Your task to perform on an android device: open app "PUBG MOBILE" (install if not already installed) Image 0: 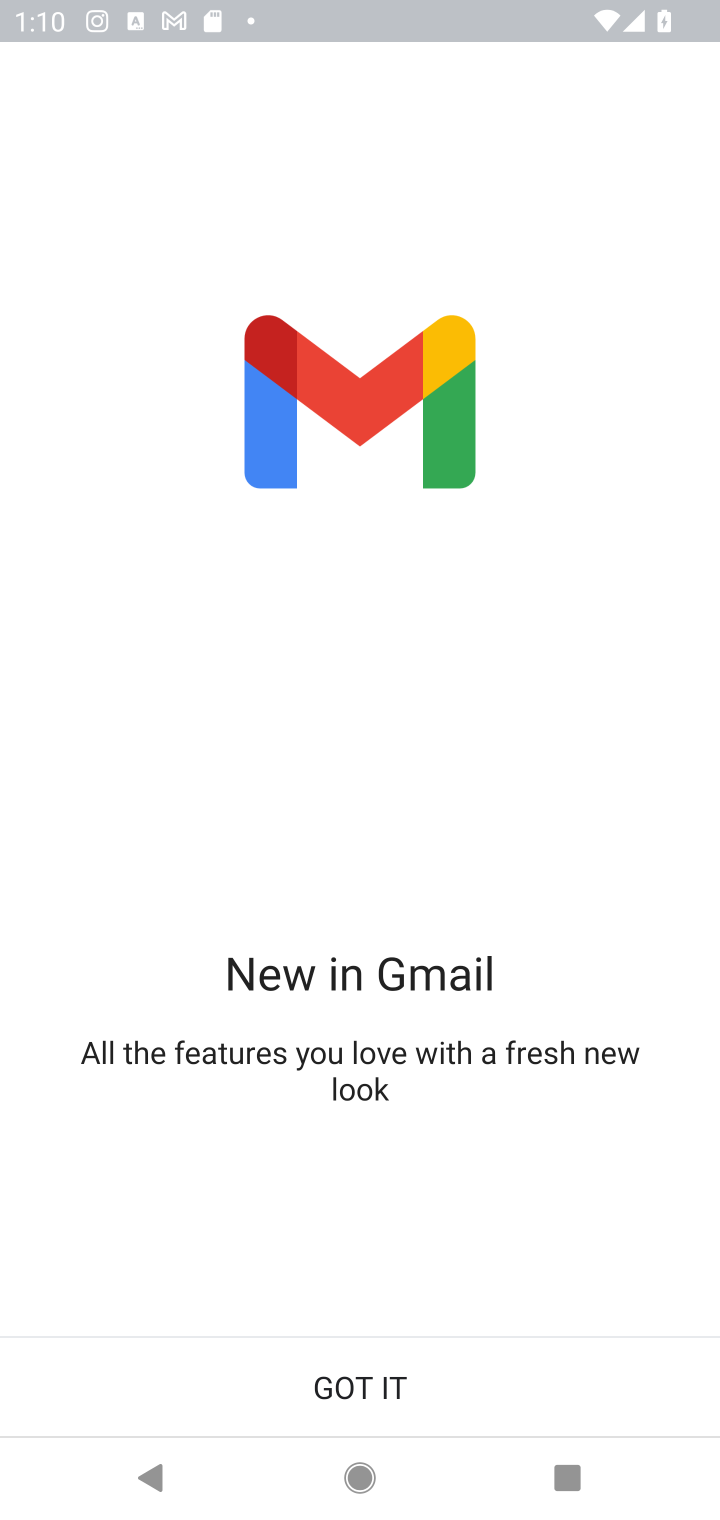
Step 0: press home button
Your task to perform on an android device: open app "PUBG MOBILE" (install if not already installed) Image 1: 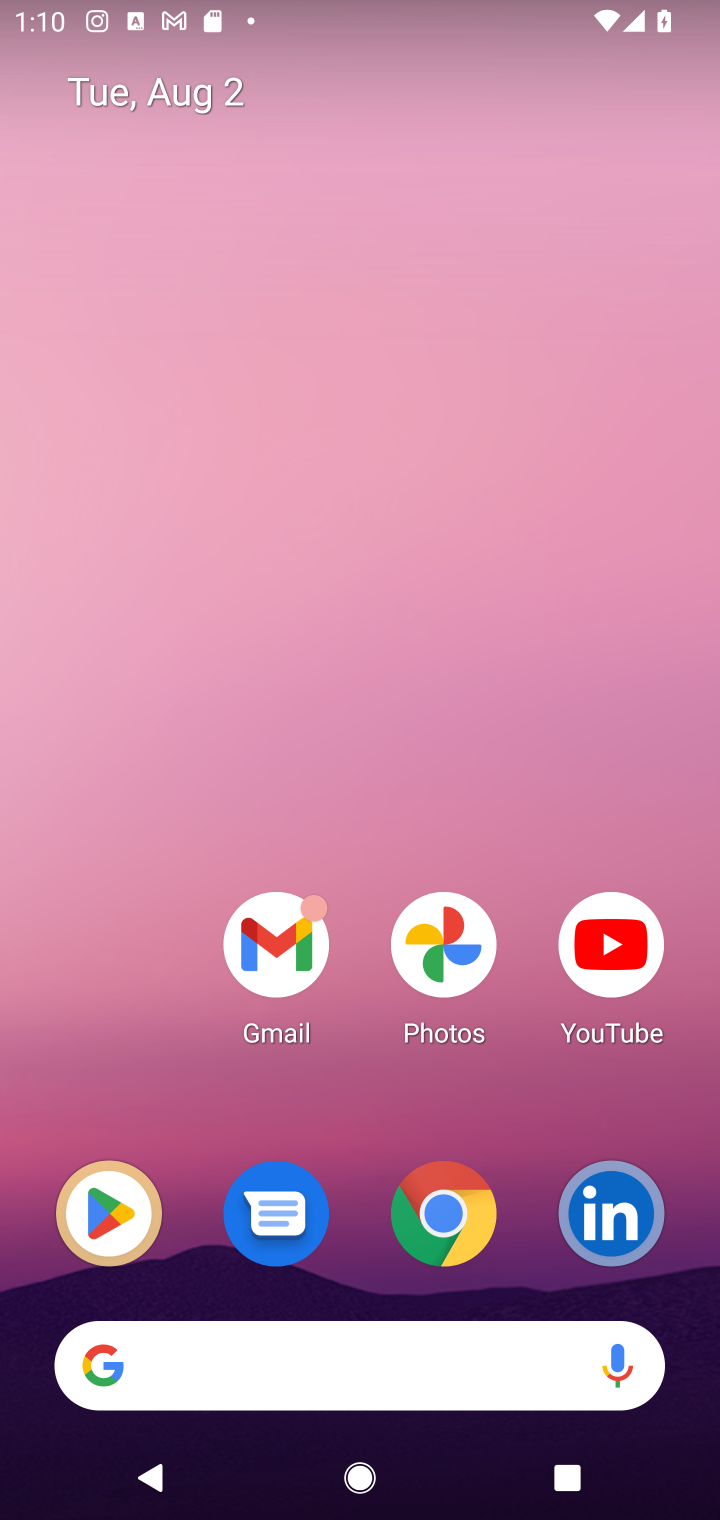
Step 1: click (93, 1230)
Your task to perform on an android device: open app "PUBG MOBILE" (install if not already installed) Image 2: 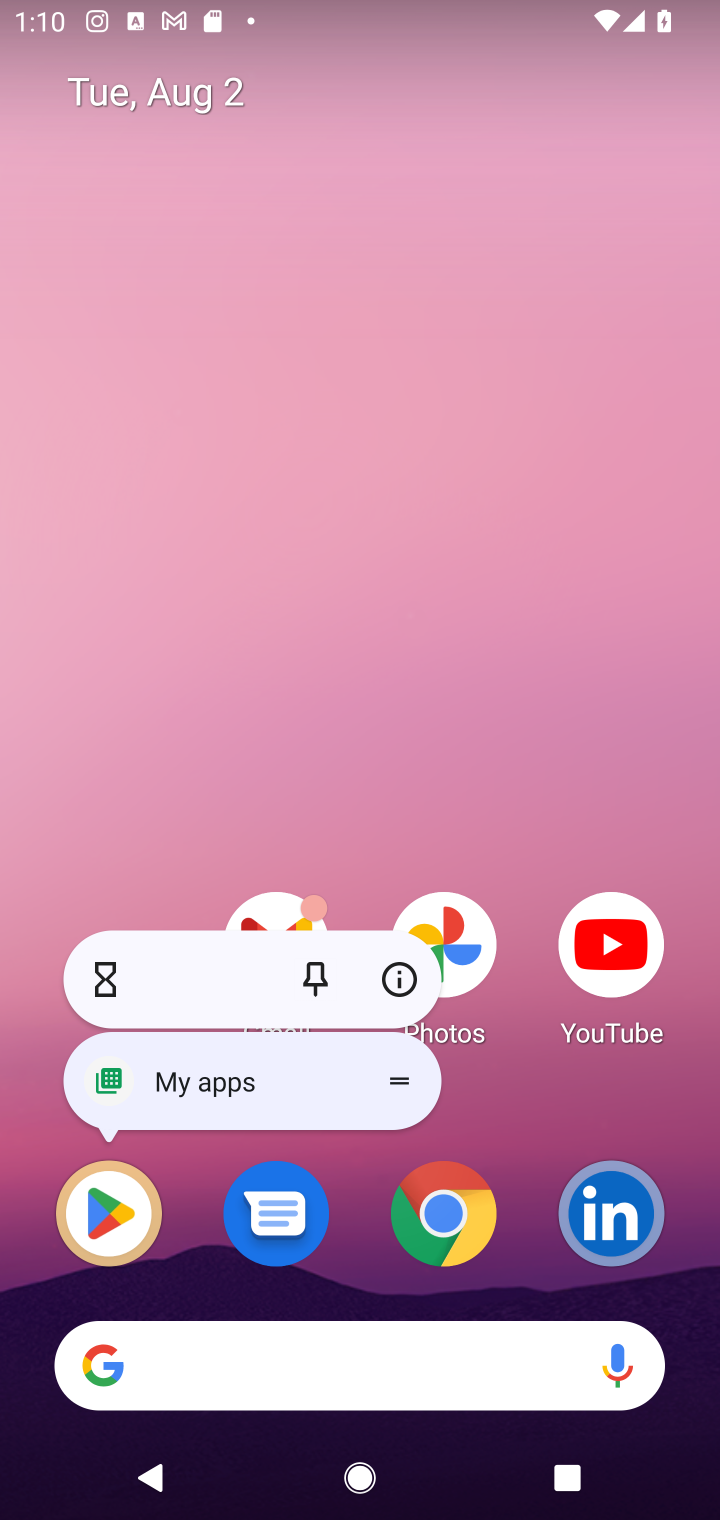
Step 2: click (89, 1218)
Your task to perform on an android device: open app "PUBG MOBILE" (install if not already installed) Image 3: 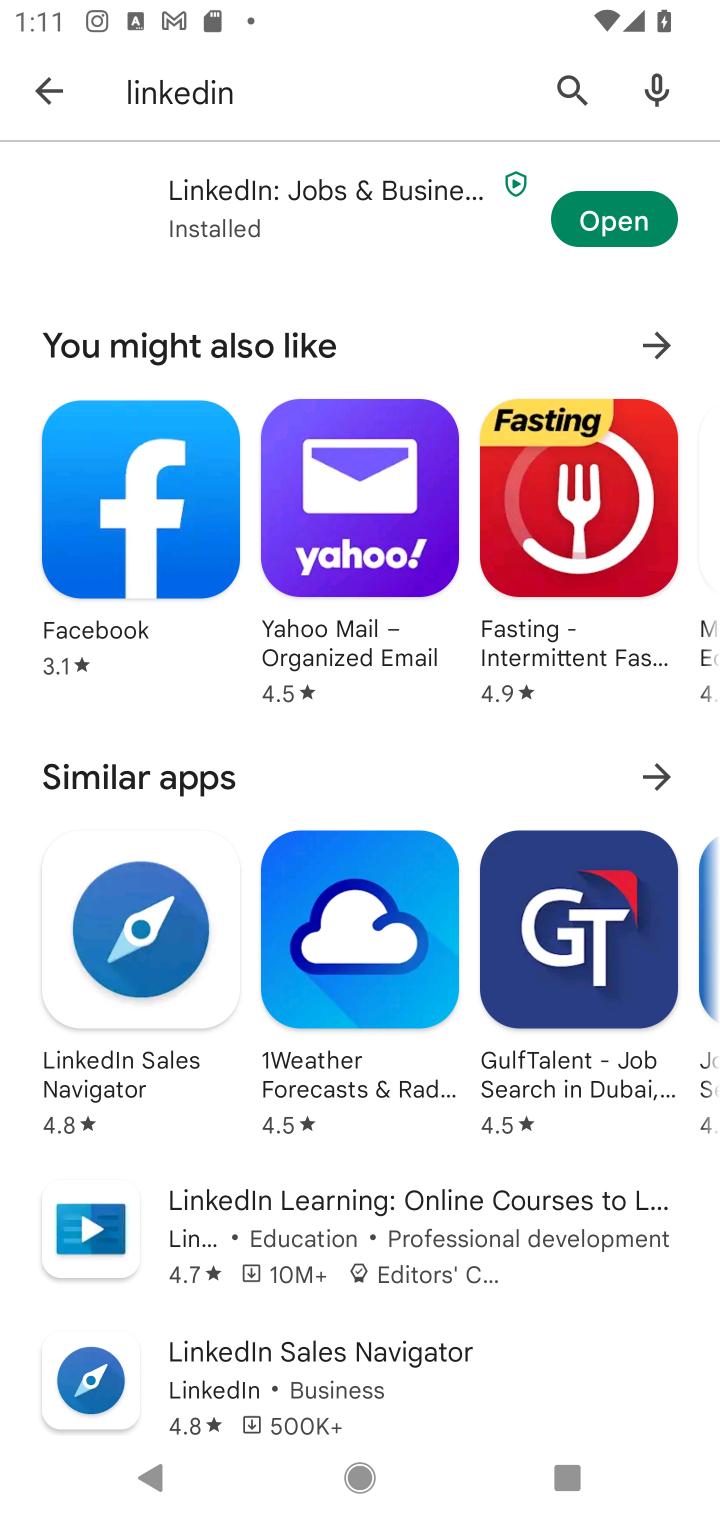
Step 3: click (37, 92)
Your task to perform on an android device: open app "PUBG MOBILE" (install if not already installed) Image 4: 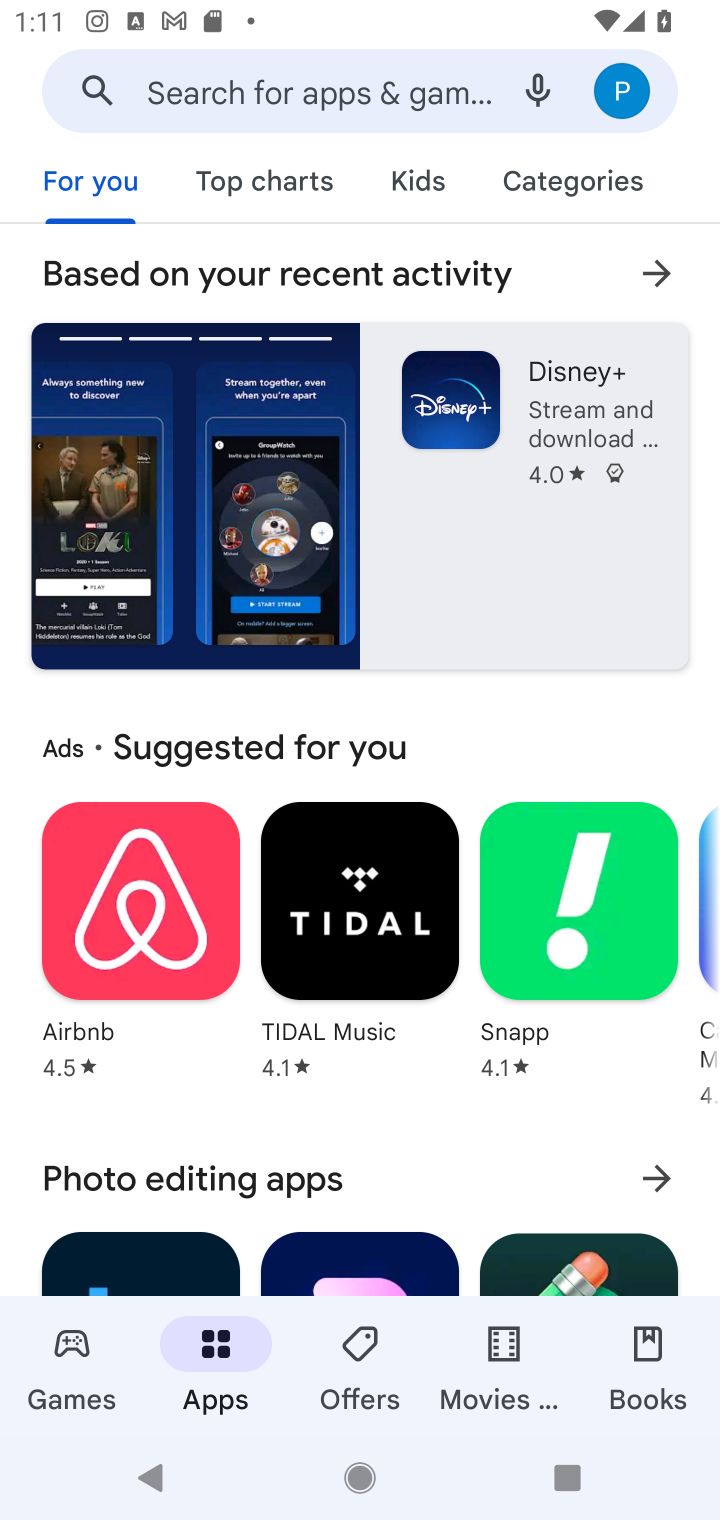
Step 4: click (170, 74)
Your task to perform on an android device: open app "PUBG MOBILE" (install if not already installed) Image 5: 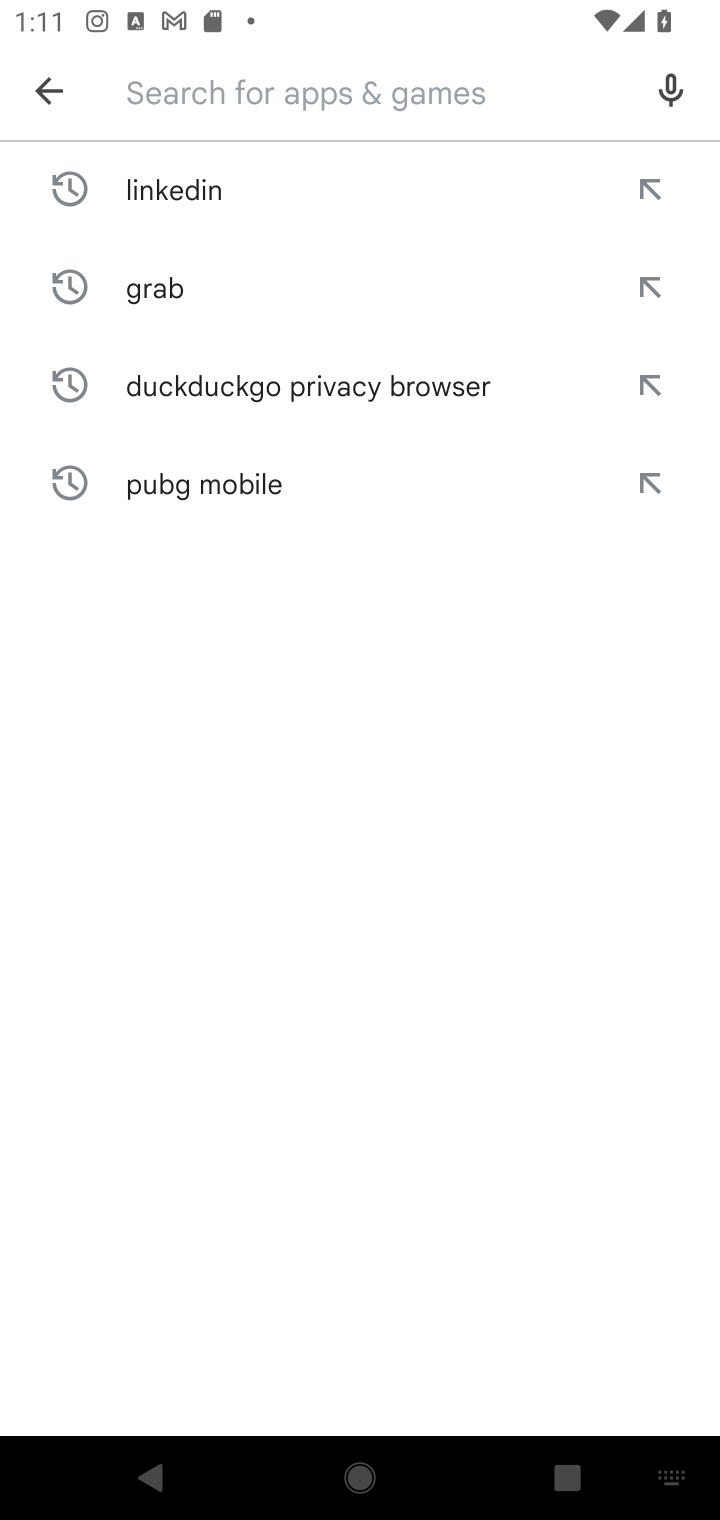
Step 5: type "PUBG MOBILE"
Your task to perform on an android device: open app "PUBG MOBILE" (install if not already installed) Image 6: 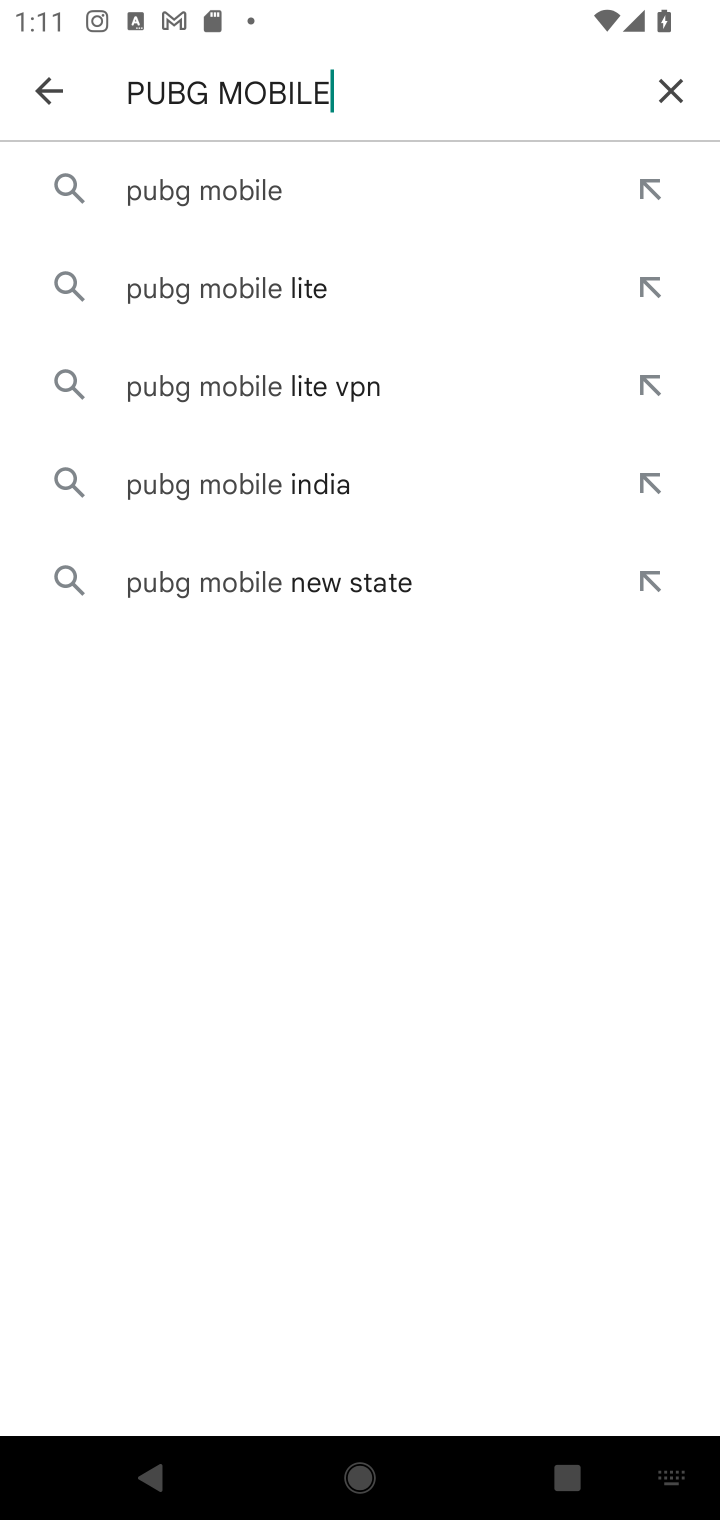
Step 6: click (264, 197)
Your task to perform on an android device: open app "PUBG MOBILE" (install if not already installed) Image 7: 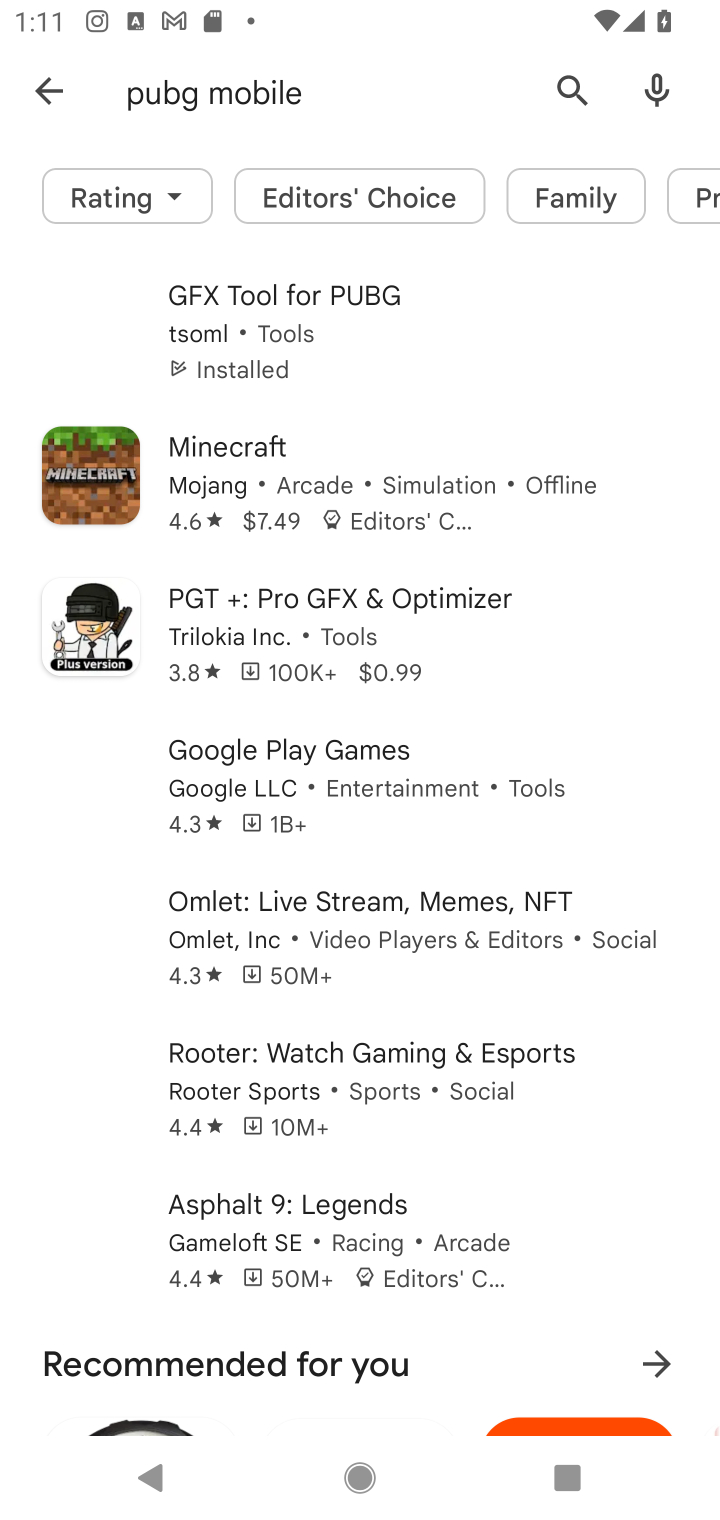
Step 7: click (296, 346)
Your task to perform on an android device: open app "PUBG MOBILE" (install if not already installed) Image 8: 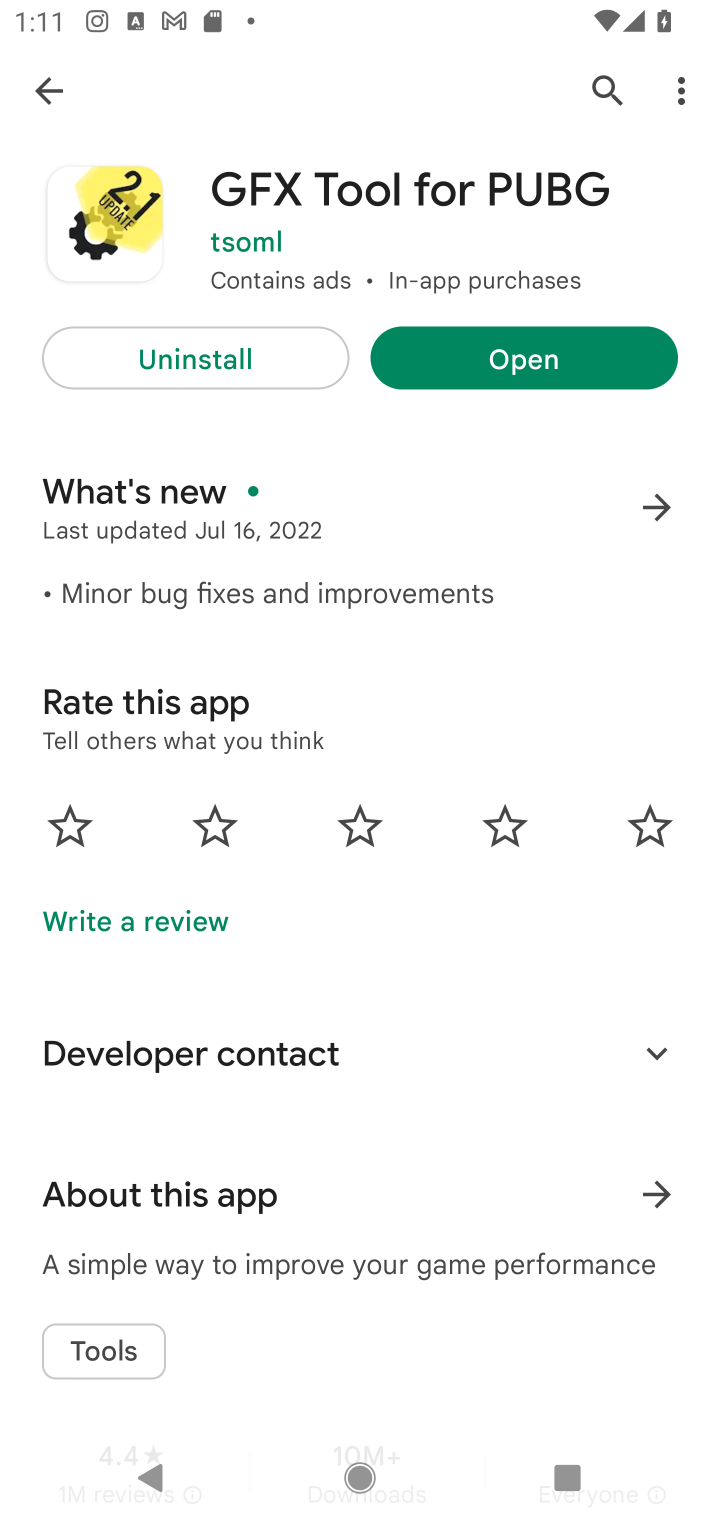
Step 8: task complete